Your task to perform on an android device: search for starred emails in the gmail app Image 0: 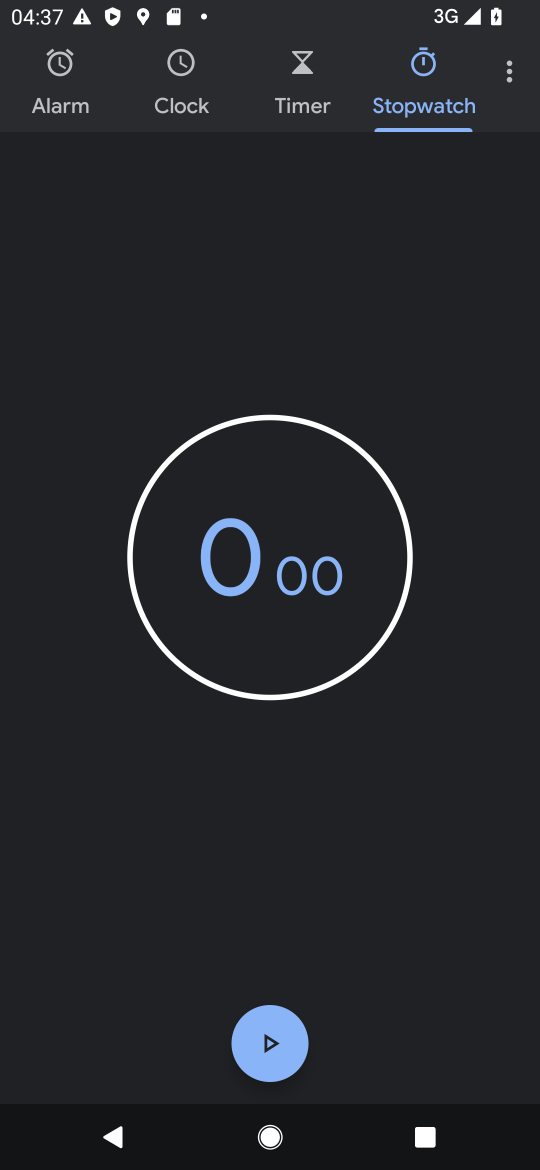
Step 0: press home button
Your task to perform on an android device: search for starred emails in the gmail app Image 1: 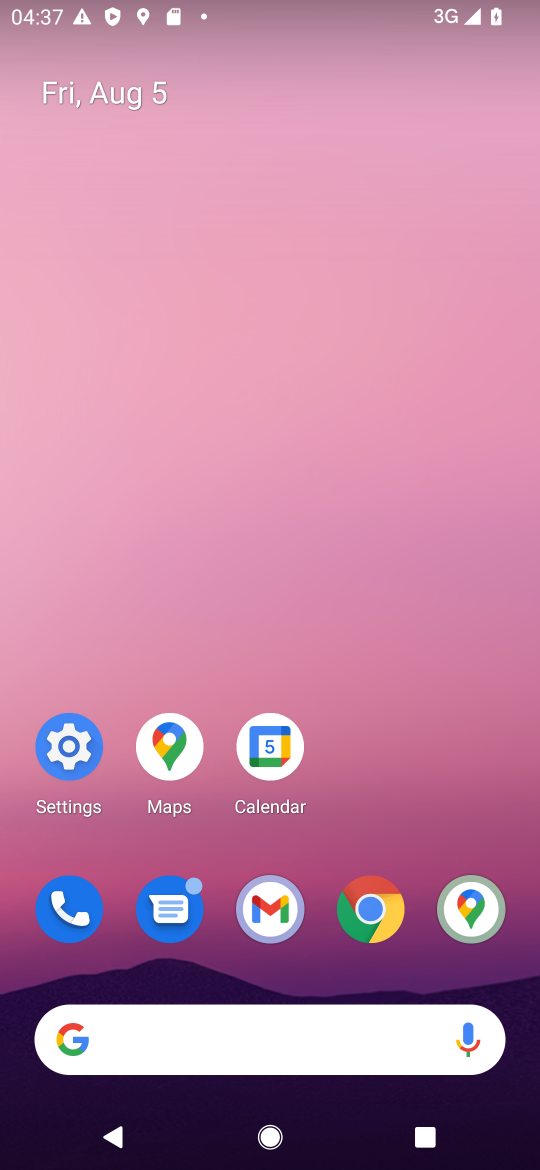
Step 1: click (282, 904)
Your task to perform on an android device: search for starred emails in the gmail app Image 2: 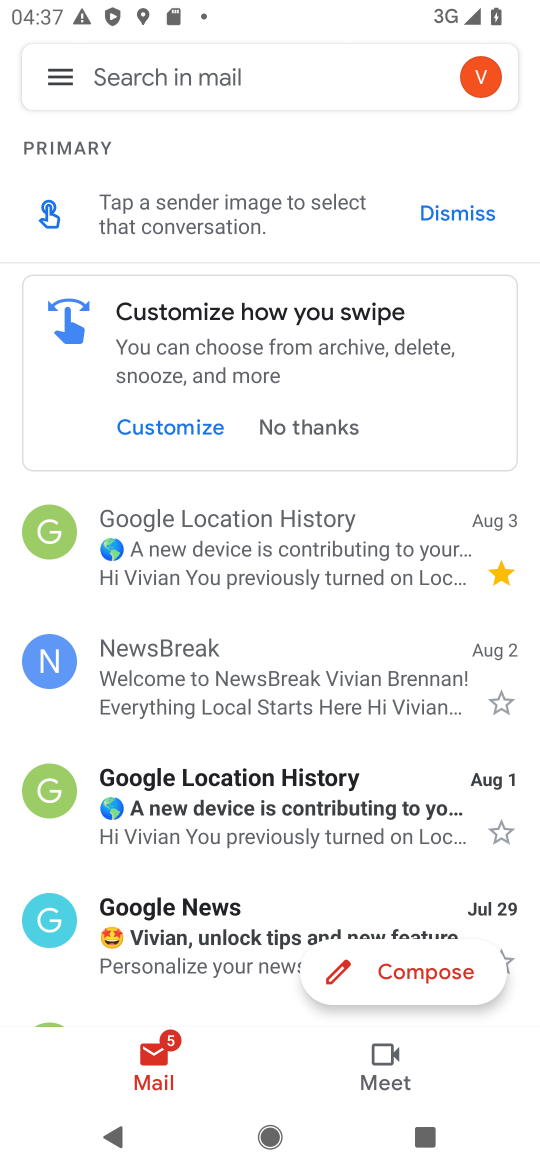
Step 2: click (62, 64)
Your task to perform on an android device: search for starred emails in the gmail app Image 3: 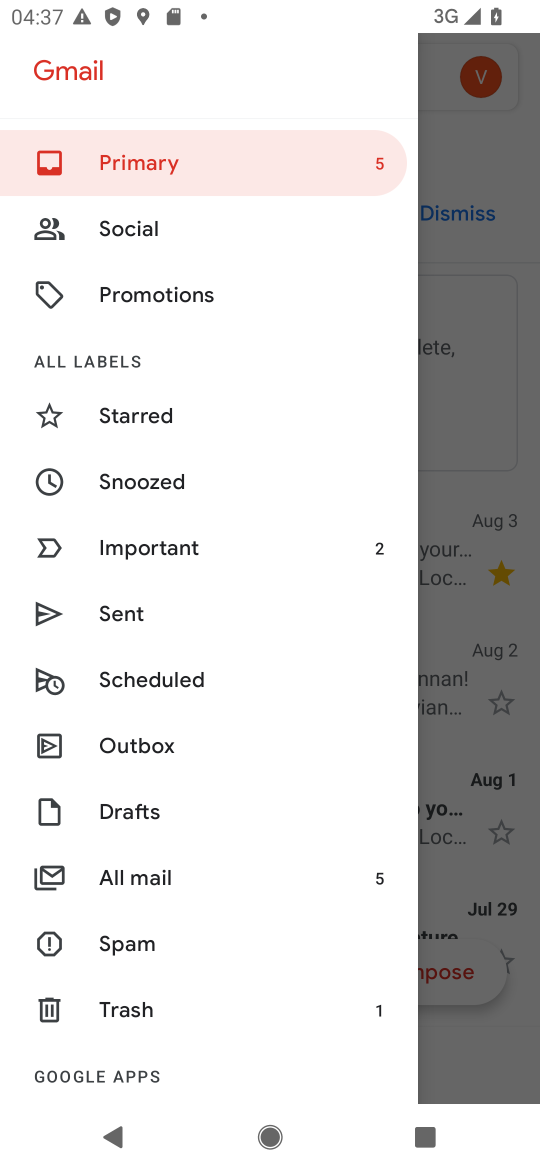
Step 3: click (135, 413)
Your task to perform on an android device: search for starred emails in the gmail app Image 4: 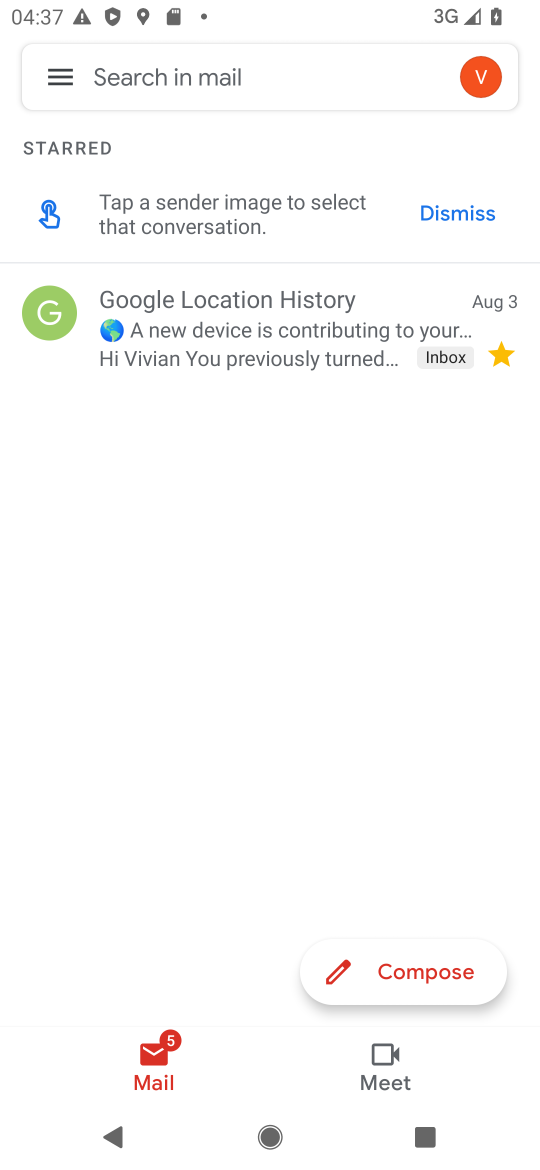
Step 4: task complete